Your task to perform on an android device: turn off smart reply in the gmail app Image 0: 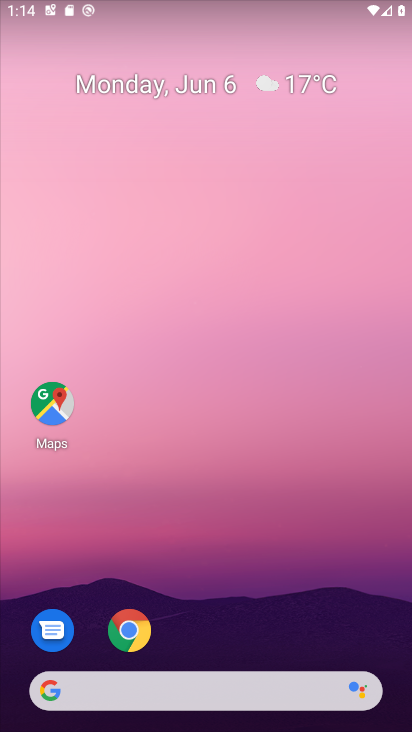
Step 0: drag from (143, 730) to (226, 89)
Your task to perform on an android device: turn off smart reply in the gmail app Image 1: 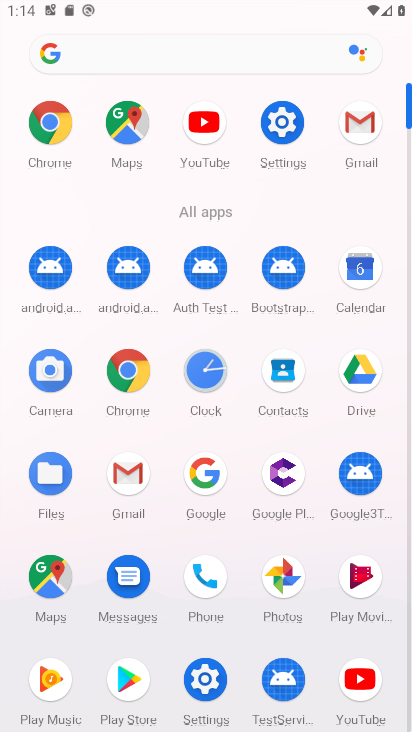
Step 1: click (135, 483)
Your task to perform on an android device: turn off smart reply in the gmail app Image 2: 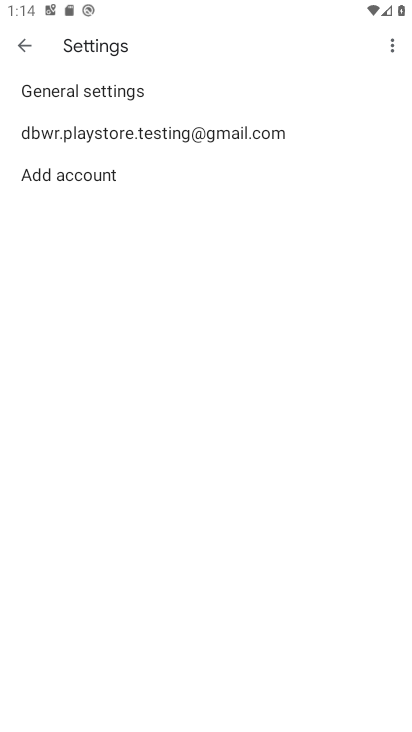
Step 2: click (98, 133)
Your task to perform on an android device: turn off smart reply in the gmail app Image 3: 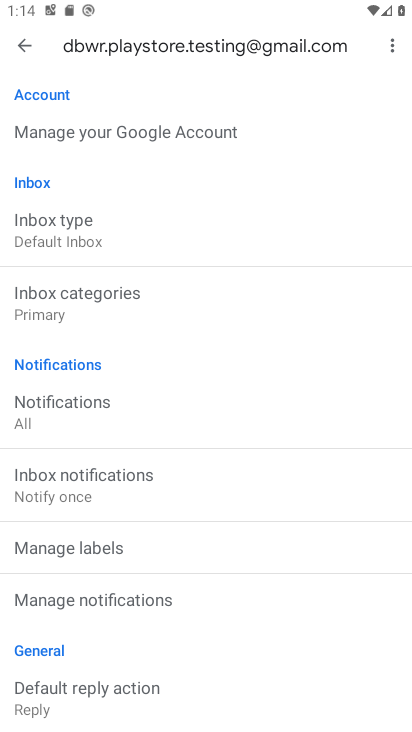
Step 3: drag from (170, 623) to (151, 229)
Your task to perform on an android device: turn off smart reply in the gmail app Image 4: 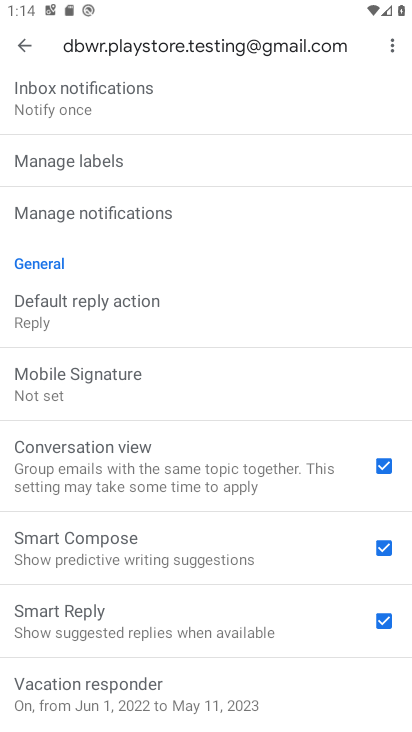
Step 4: click (387, 628)
Your task to perform on an android device: turn off smart reply in the gmail app Image 5: 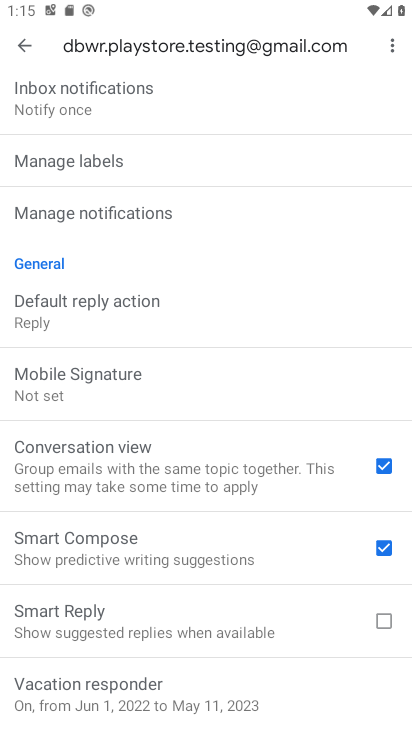
Step 5: task complete